Your task to perform on an android device: turn pop-ups on in chrome Image 0: 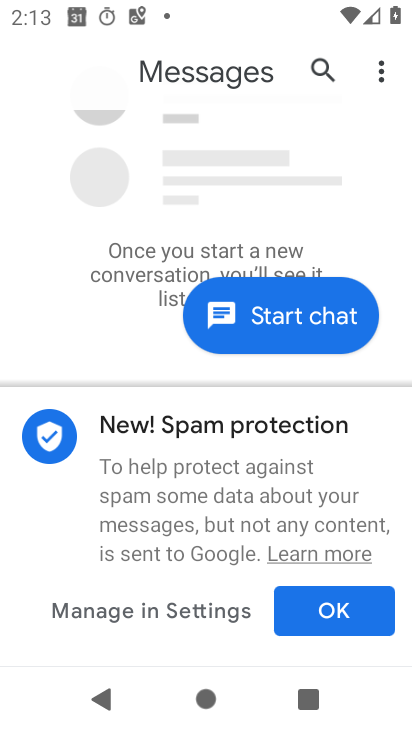
Step 0: press home button
Your task to perform on an android device: turn pop-ups on in chrome Image 1: 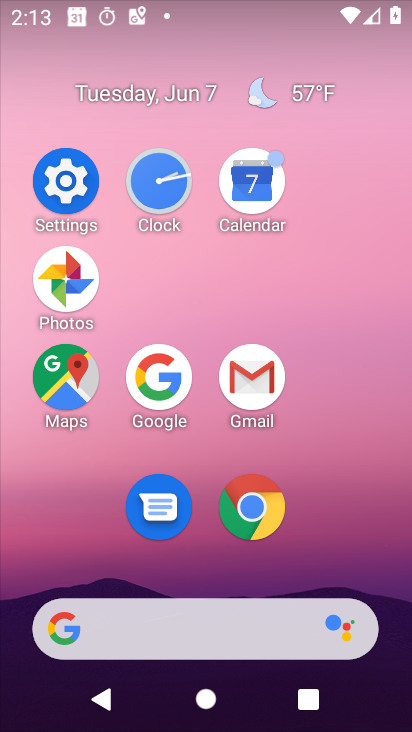
Step 1: click (254, 502)
Your task to perform on an android device: turn pop-ups on in chrome Image 2: 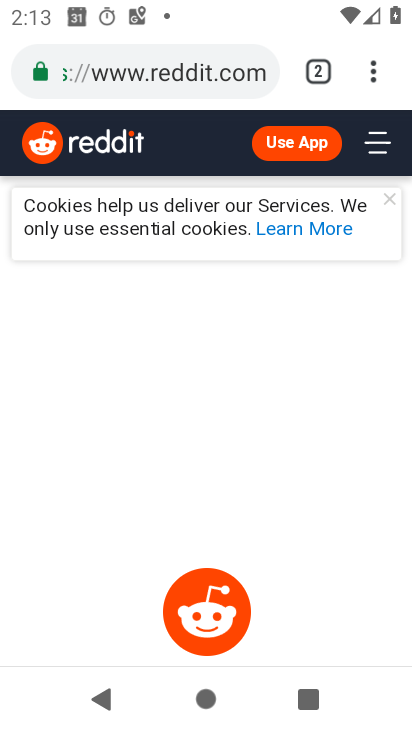
Step 2: click (385, 57)
Your task to perform on an android device: turn pop-ups on in chrome Image 3: 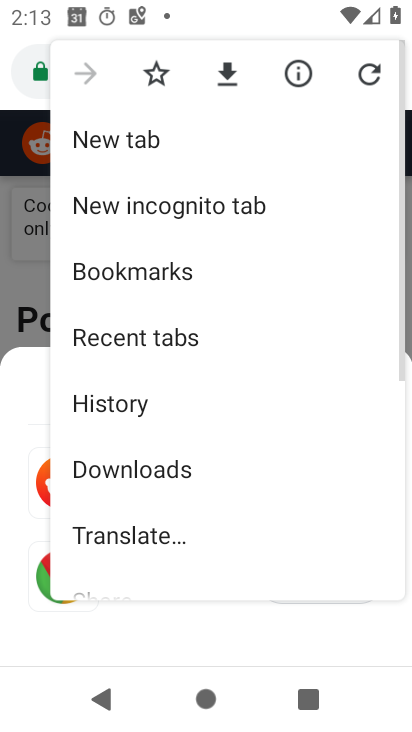
Step 3: drag from (250, 410) to (252, 117)
Your task to perform on an android device: turn pop-ups on in chrome Image 4: 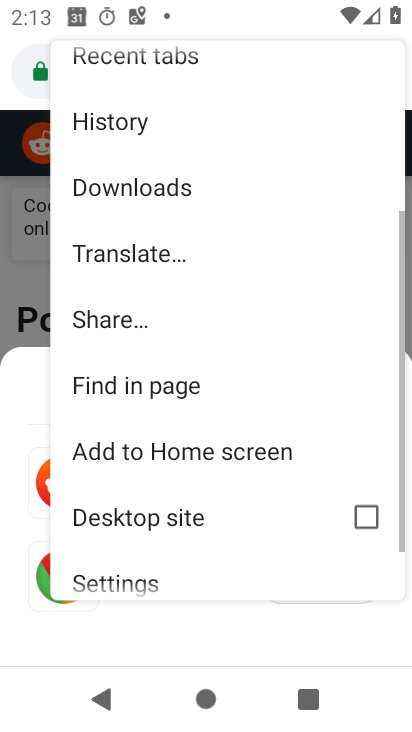
Step 4: drag from (145, 561) to (212, 180)
Your task to perform on an android device: turn pop-ups on in chrome Image 5: 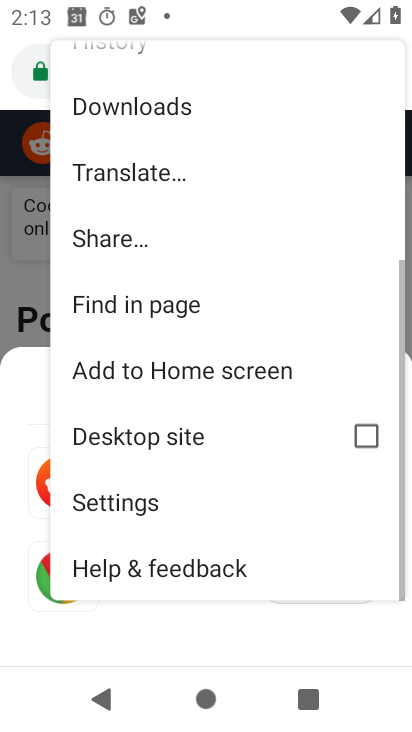
Step 5: click (226, 487)
Your task to perform on an android device: turn pop-ups on in chrome Image 6: 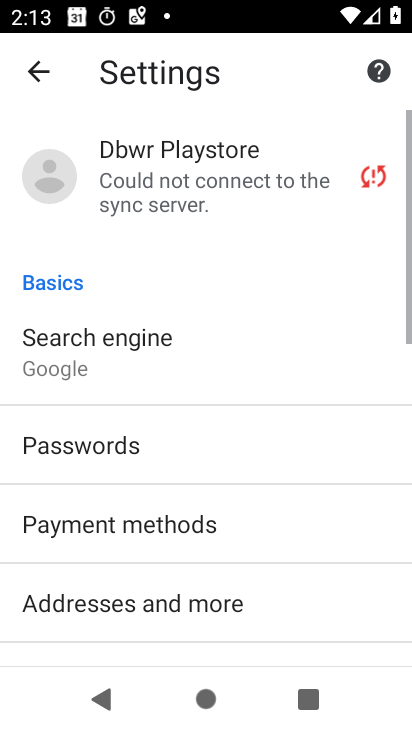
Step 6: drag from (226, 487) to (260, 192)
Your task to perform on an android device: turn pop-ups on in chrome Image 7: 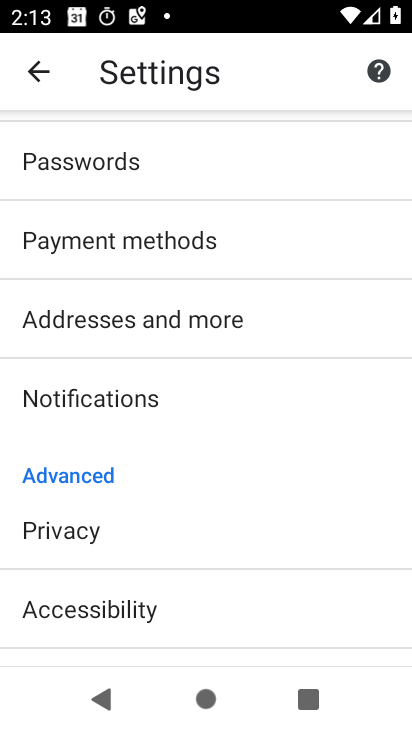
Step 7: drag from (215, 516) to (260, 186)
Your task to perform on an android device: turn pop-ups on in chrome Image 8: 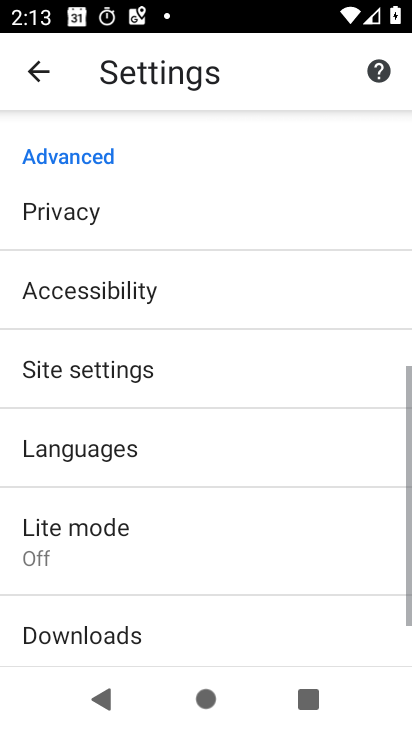
Step 8: drag from (191, 467) to (216, 263)
Your task to perform on an android device: turn pop-ups on in chrome Image 9: 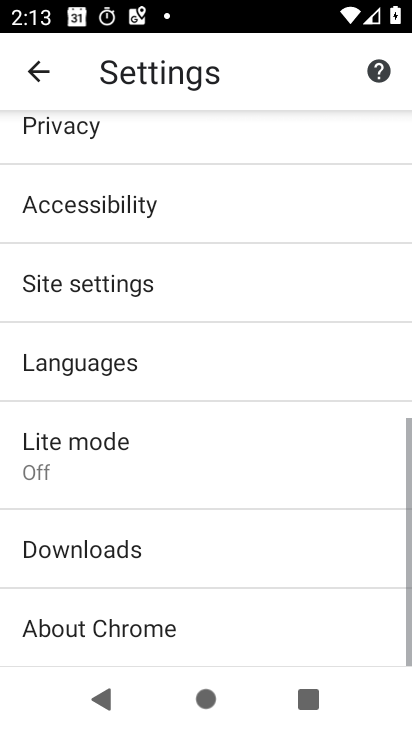
Step 9: click (209, 282)
Your task to perform on an android device: turn pop-ups on in chrome Image 10: 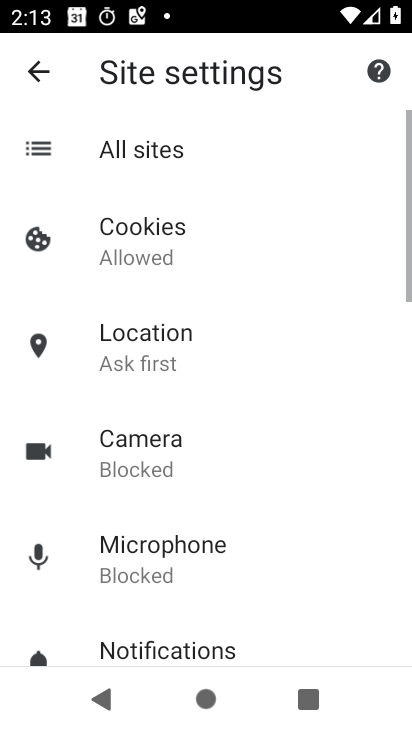
Step 10: drag from (218, 500) to (242, 289)
Your task to perform on an android device: turn pop-ups on in chrome Image 11: 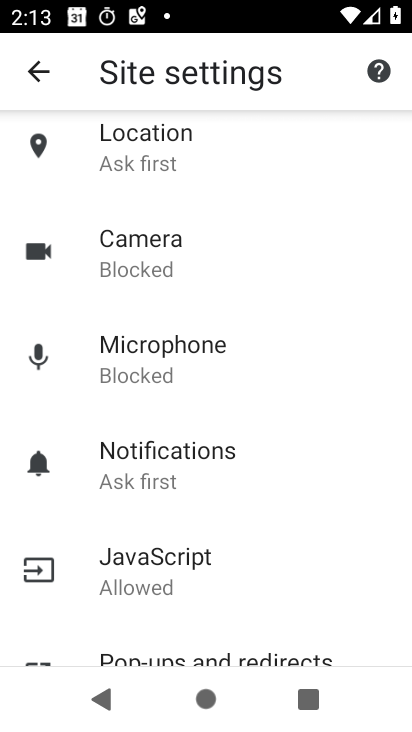
Step 11: drag from (246, 462) to (273, 230)
Your task to perform on an android device: turn pop-ups on in chrome Image 12: 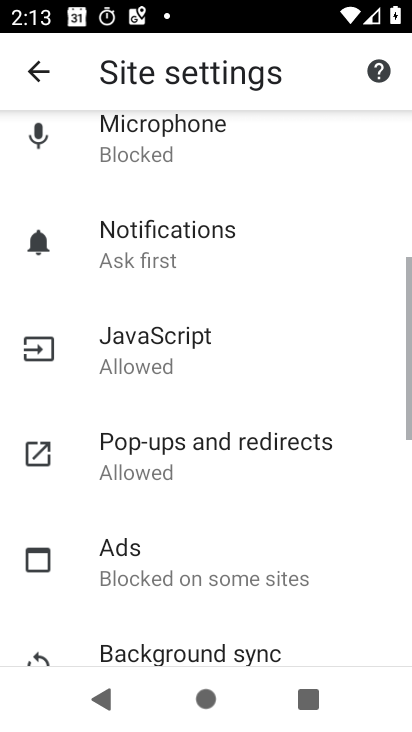
Step 12: click (270, 425)
Your task to perform on an android device: turn pop-ups on in chrome Image 13: 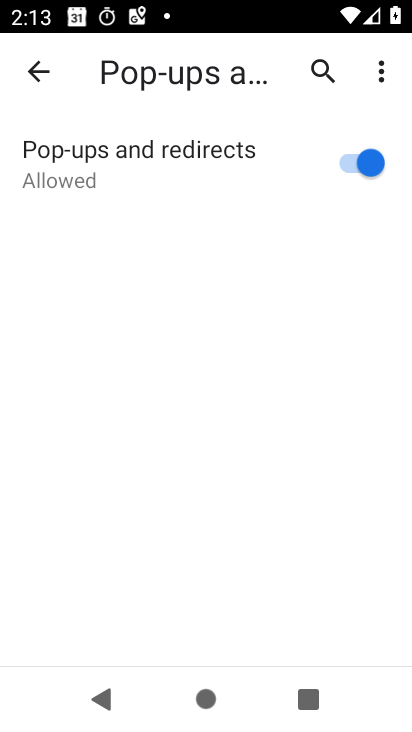
Step 13: task complete